Your task to perform on an android device: show emergency info Image 0: 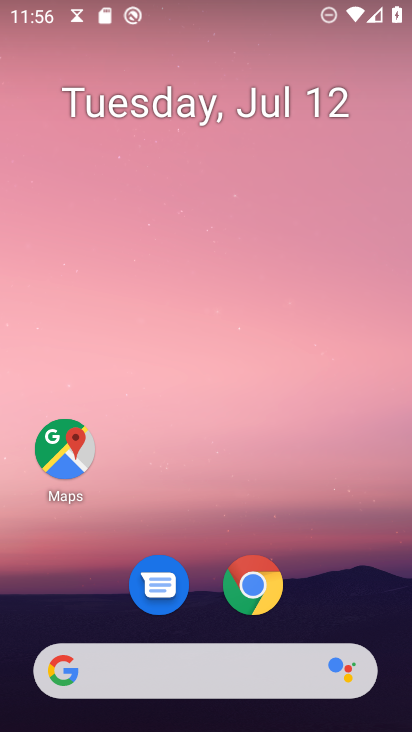
Step 0: drag from (222, 675) to (310, 82)
Your task to perform on an android device: show emergency info Image 1: 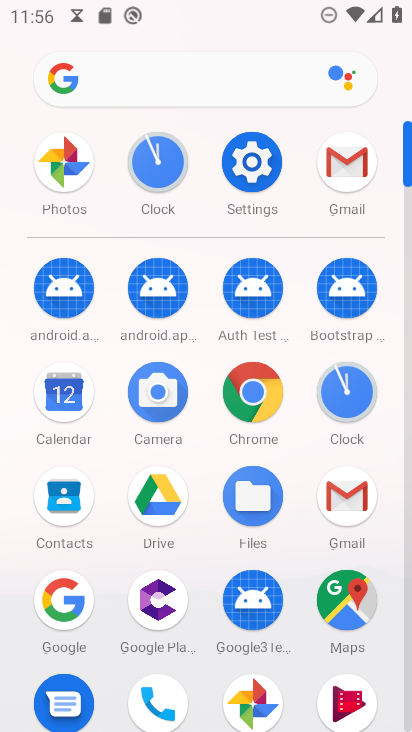
Step 1: click (263, 166)
Your task to perform on an android device: show emergency info Image 2: 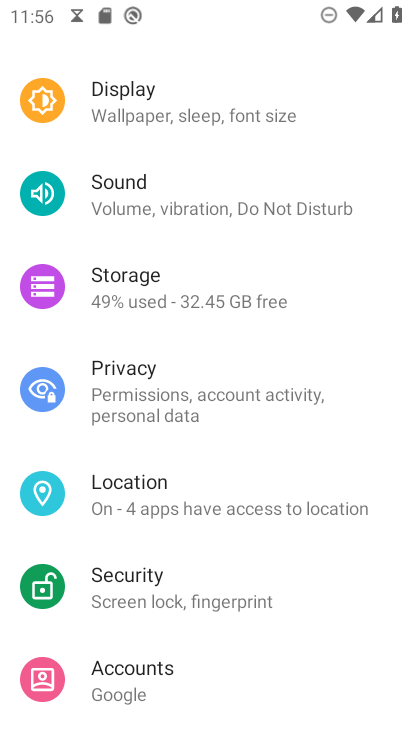
Step 2: drag from (236, 660) to (354, 68)
Your task to perform on an android device: show emergency info Image 3: 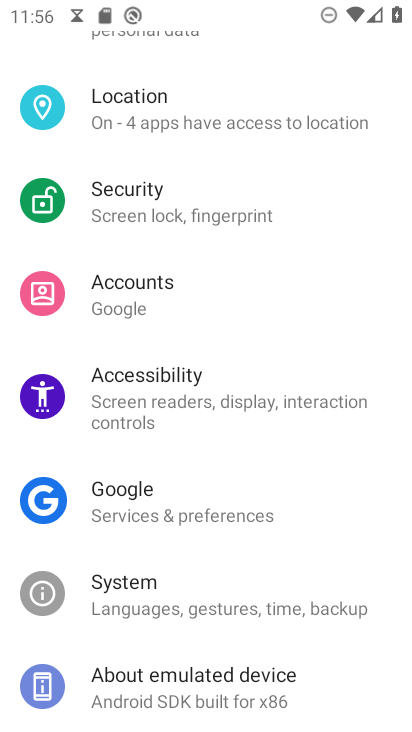
Step 3: click (183, 691)
Your task to perform on an android device: show emergency info Image 4: 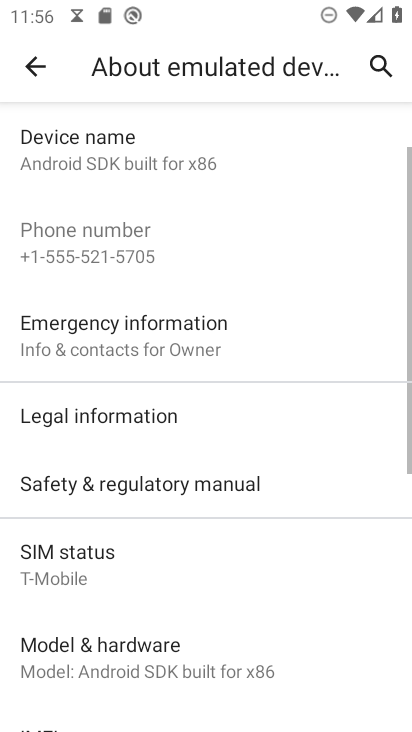
Step 4: click (174, 341)
Your task to perform on an android device: show emergency info Image 5: 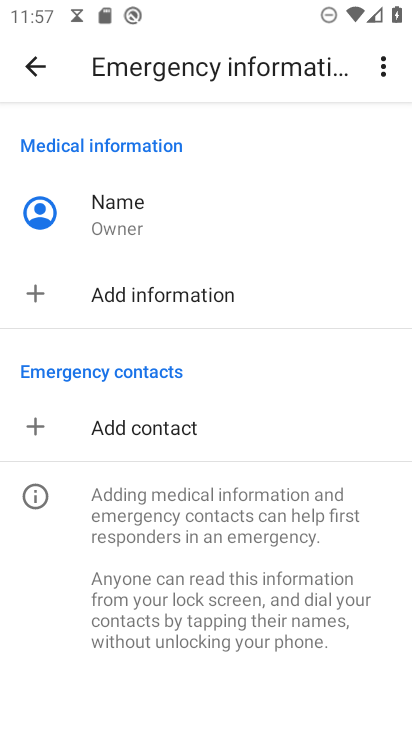
Step 5: task complete